Your task to perform on an android device: Go to Yahoo.com Image 0: 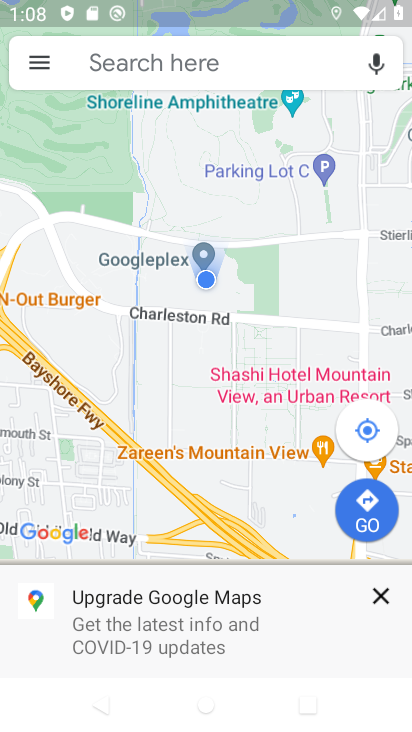
Step 0: press home button
Your task to perform on an android device: Go to Yahoo.com Image 1: 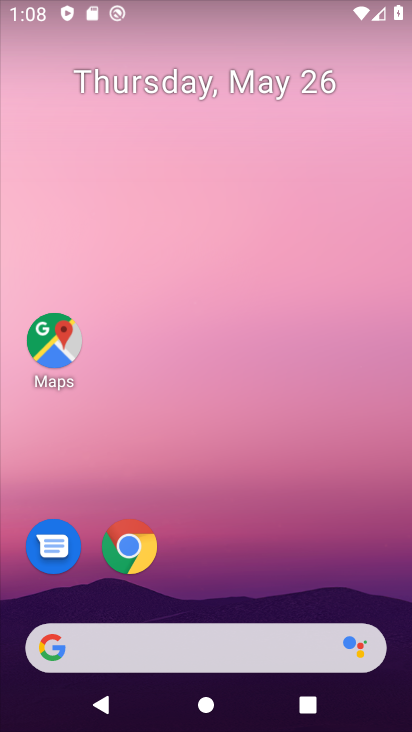
Step 1: click (125, 558)
Your task to perform on an android device: Go to Yahoo.com Image 2: 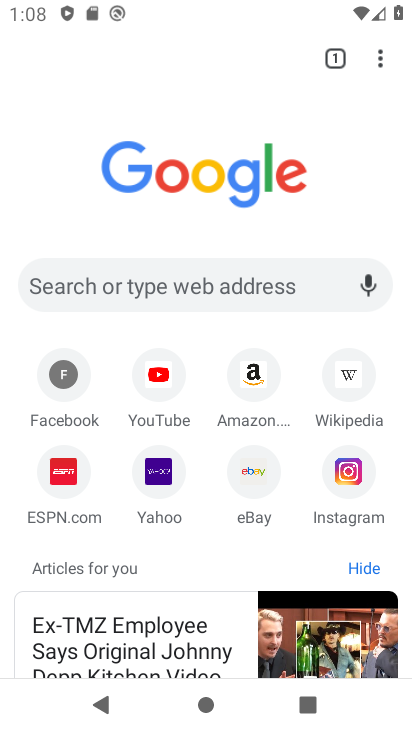
Step 2: click (154, 466)
Your task to perform on an android device: Go to Yahoo.com Image 3: 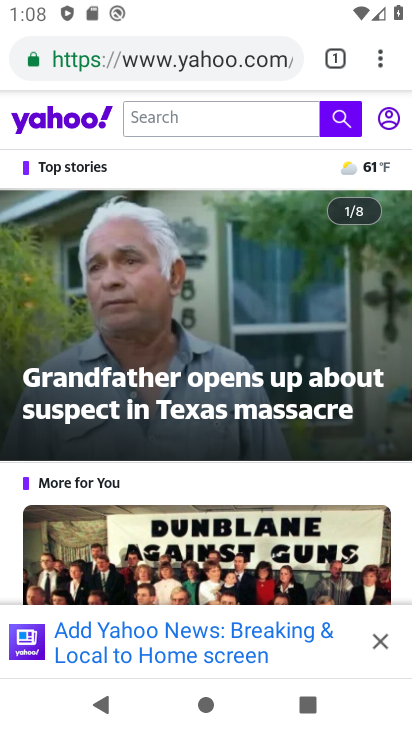
Step 3: task complete